Your task to perform on an android device: Open Google Maps and go to "Timeline" Image 0: 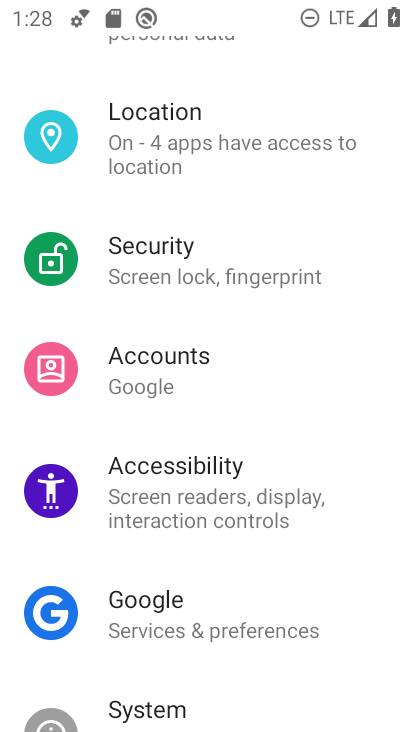
Step 0: press home button
Your task to perform on an android device: Open Google Maps and go to "Timeline" Image 1: 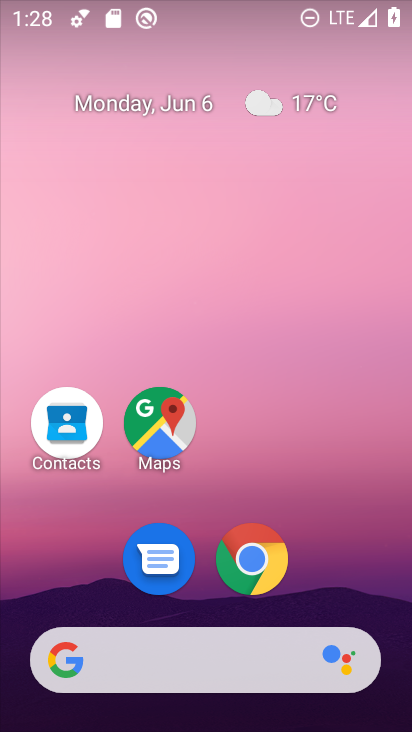
Step 1: drag from (213, 710) to (206, 219)
Your task to perform on an android device: Open Google Maps and go to "Timeline" Image 2: 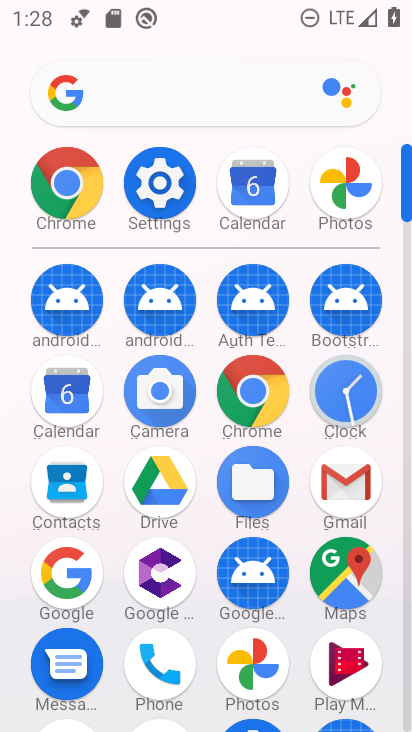
Step 2: drag from (179, 522) to (186, 303)
Your task to perform on an android device: Open Google Maps and go to "Timeline" Image 3: 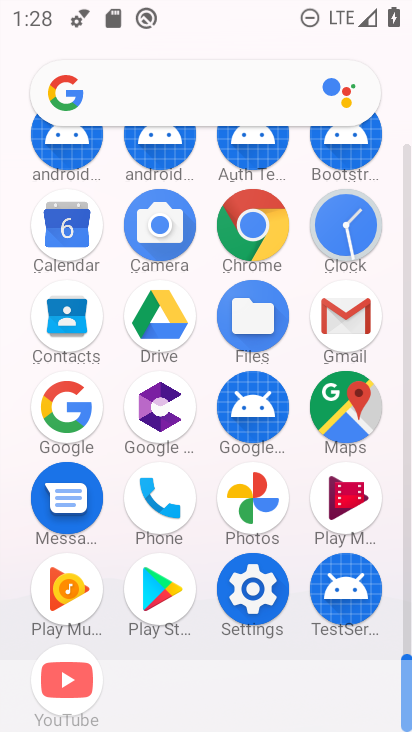
Step 3: click (355, 418)
Your task to perform on an android device: Open Google Maps and go to "Timeline" Image 4: 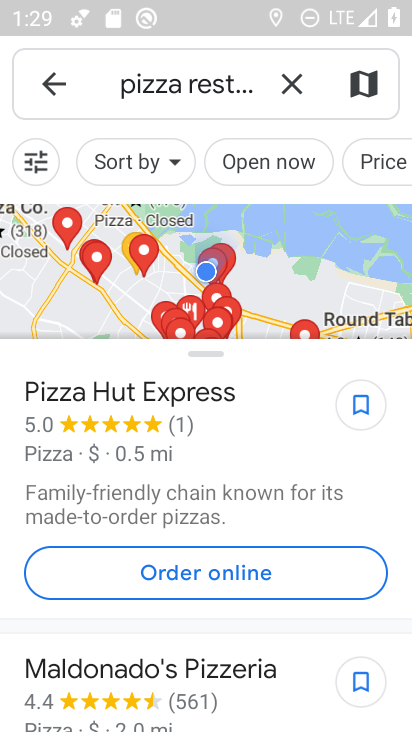
Step 4: click (55, 79)
Your task to perform on an android device: Open Google Maps and go to "Timeline" Image 5: 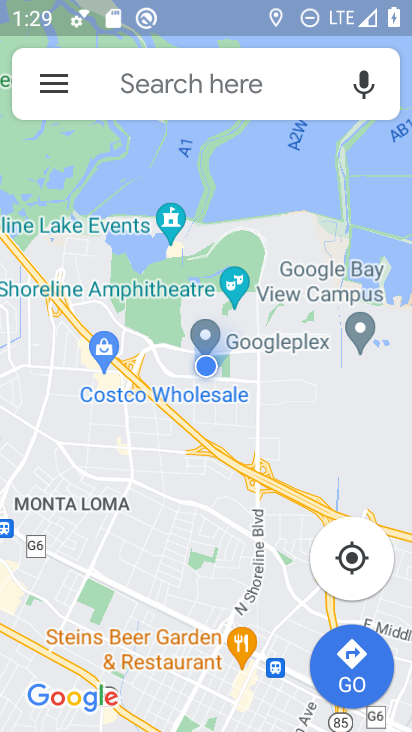
Step 5: click (55, 81)
Your task to perform on an android device: Open Google Maps and go to "Timeline" Image 6: 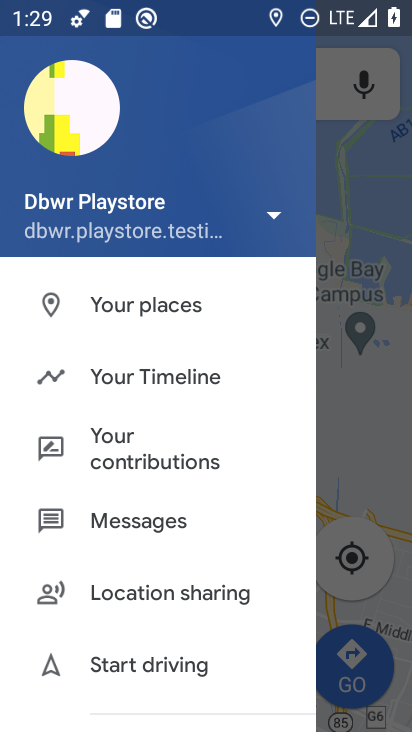
Step 6: click (125, 372)
Your task to perform on an android device: Open Google Maps and go to "Timeline" Image 7: 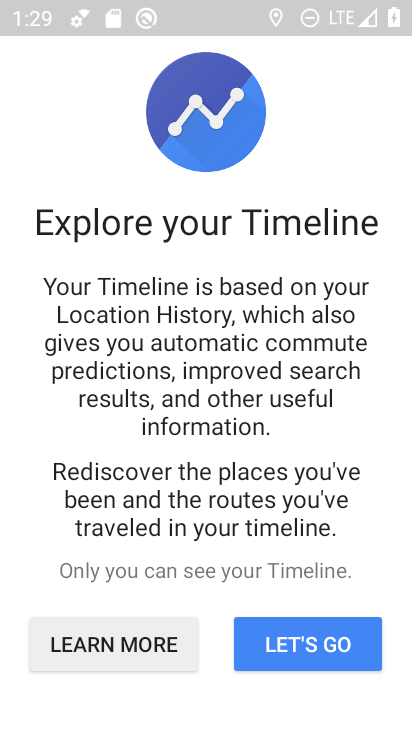
Step 7: drag from (201, 495) to (193, 216)
Your task to perform on an android device: Open Google Maps and go to "Timeline" Image 8: 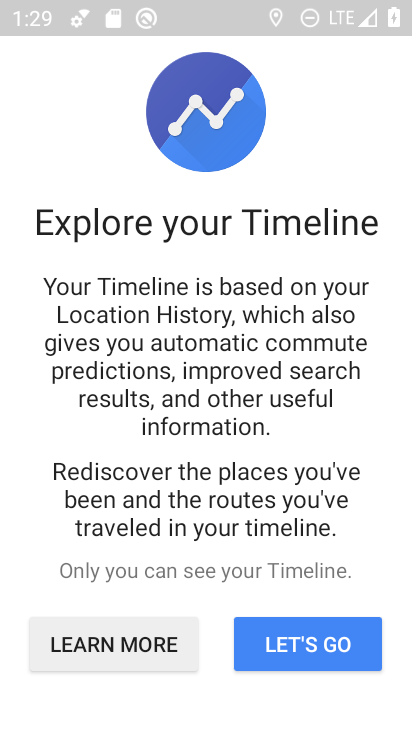
Step 8: click (298, 656)
Your task to perform on an android device: Open Google Maps and go to "Timeline" Image 9: 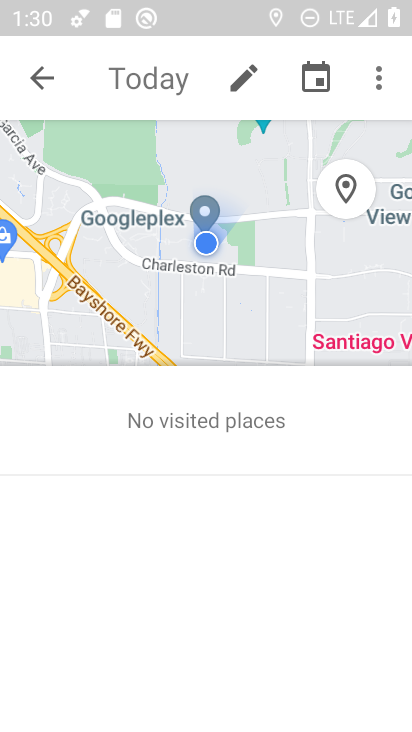
Step 9: task complete